Your task to perform on an android device: toggle wifi Image 0: 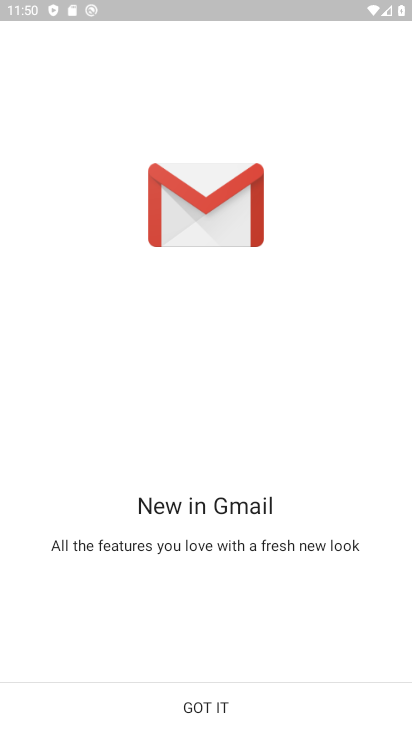
Step 0: press home button
Your task to perform on an android device: toggle wifi Image 1: 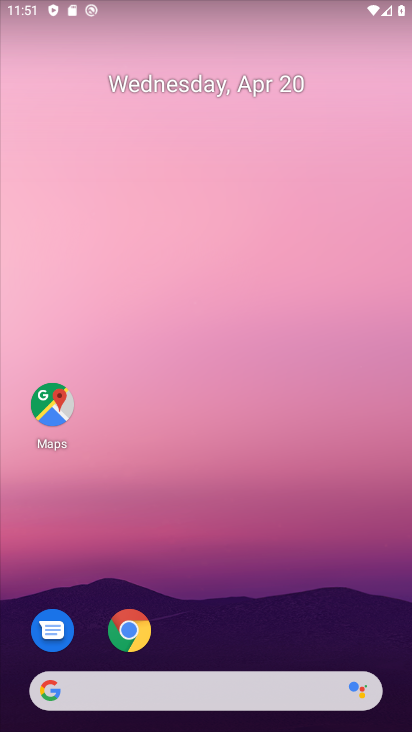
Step 1: drag from (172, 640) to (222, 15)
Your task to perform on an android device: toggle wifi Image 2: 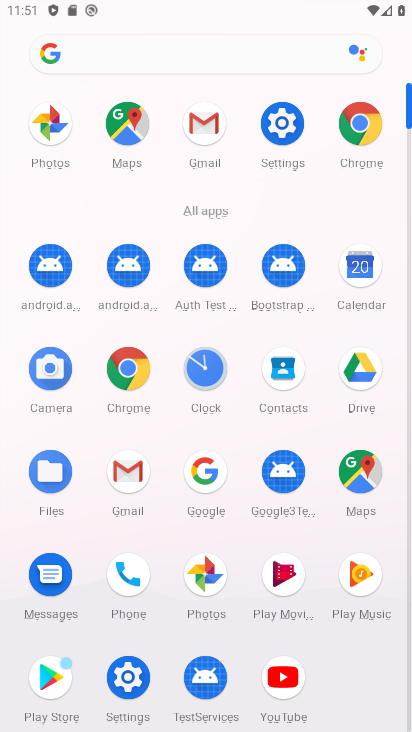
Step 2: click (287, 129)
Your task to perform on an android device: toggle wifi Image 3: 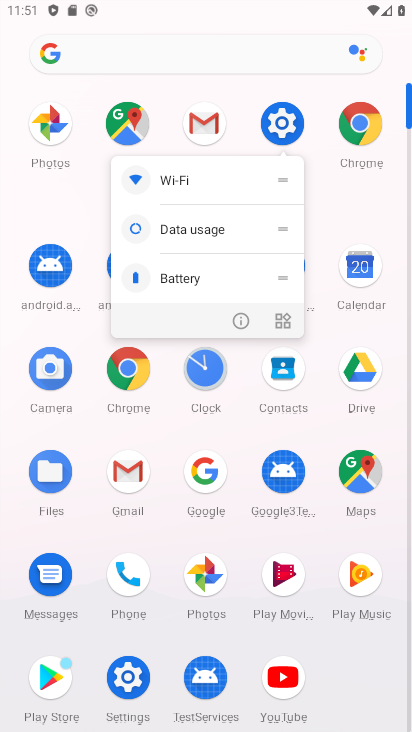
Step 3: click (281, 130)
Your task to perform on an android device: toggle wifi Image 4: 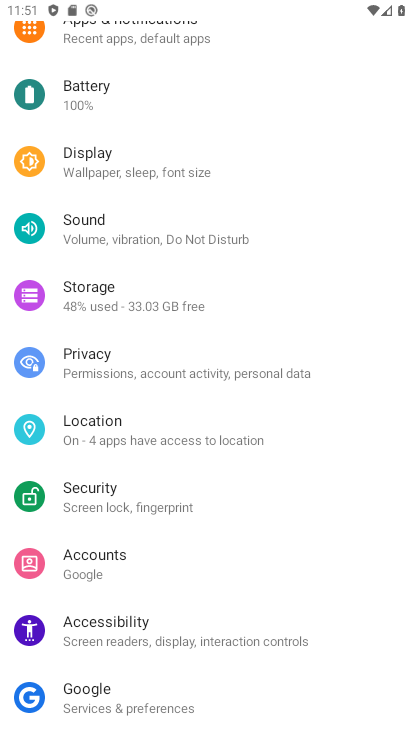
Step 4: drag from (227, 113) to (170, 519)
Your task to perform on an android device: toggle wifi Image 5: 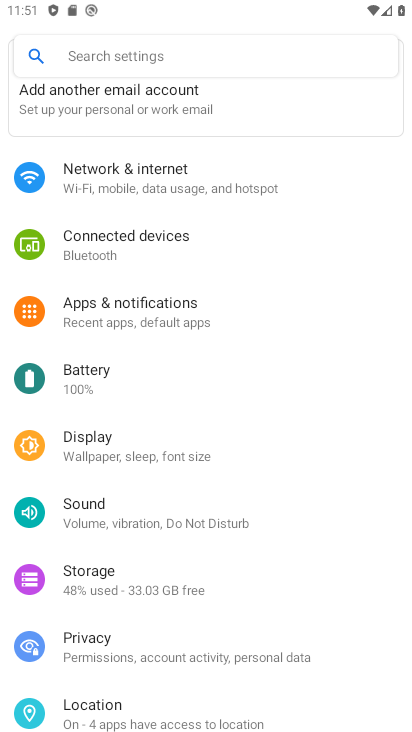
Step 5: click (162, 174)
Your task to perform on an android device: toggle wifi Image 6: 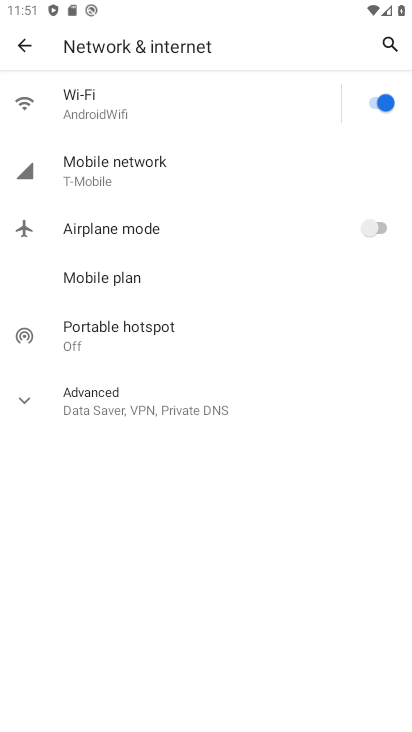
Step 6: click (372, 103)
Your task to perform on an android device: toggle wifi Image 7: 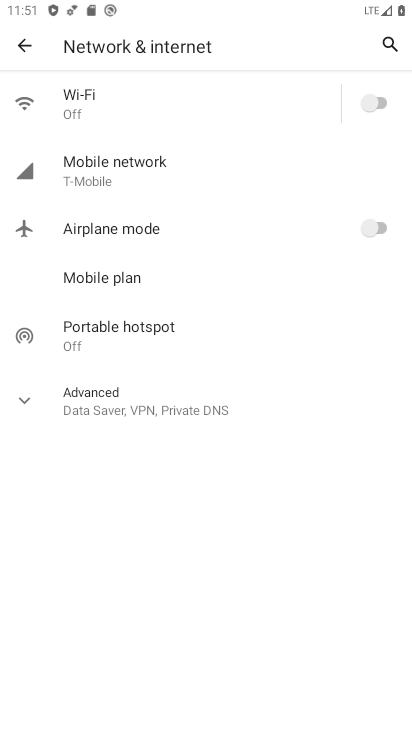
Step 7: task complete